Your task to perform on an android device: Search for "alienware aurora" on costco, select the first entry, and add it to the cart. Image 0: 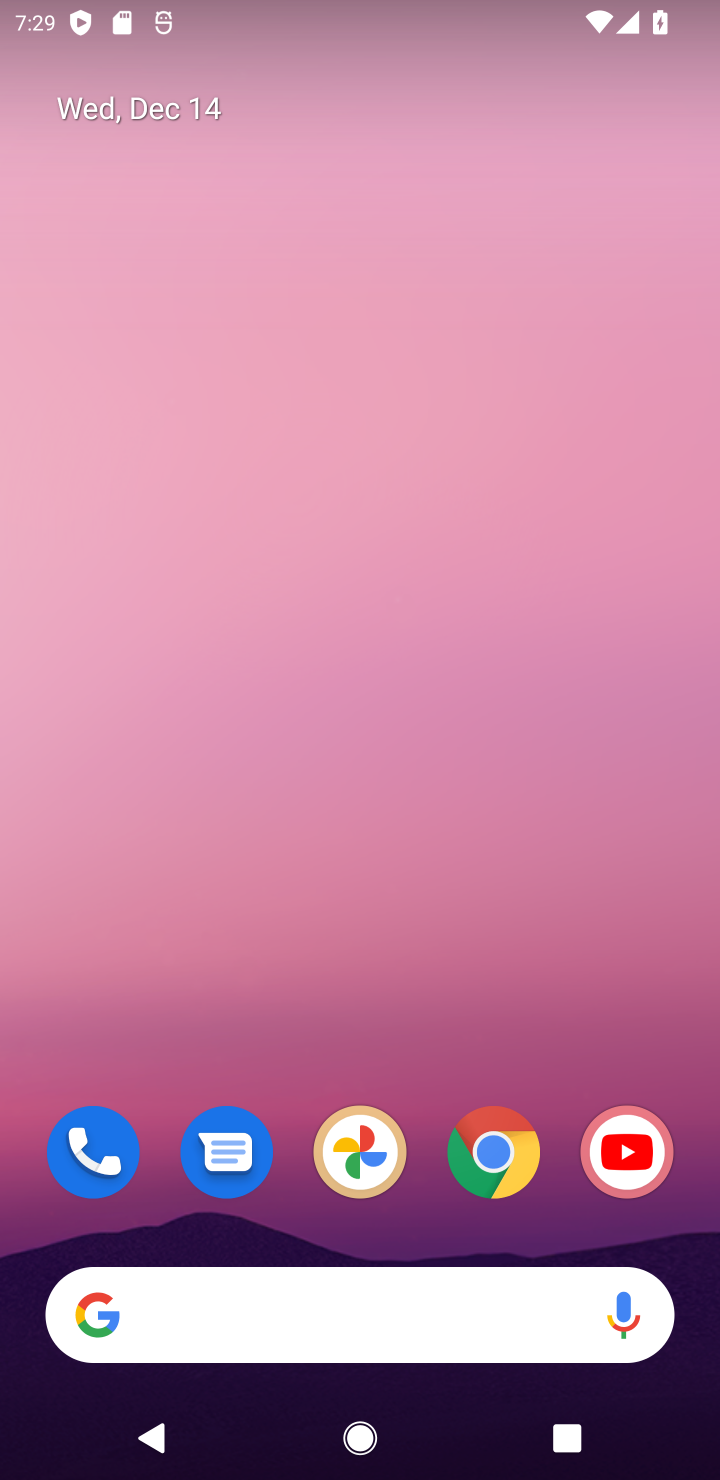
Step 0: click (490, 1150)
Your task to perform on an android device: Search for "alienware aurora" on costco, select the first entry, and add it to the cart. Image 1: 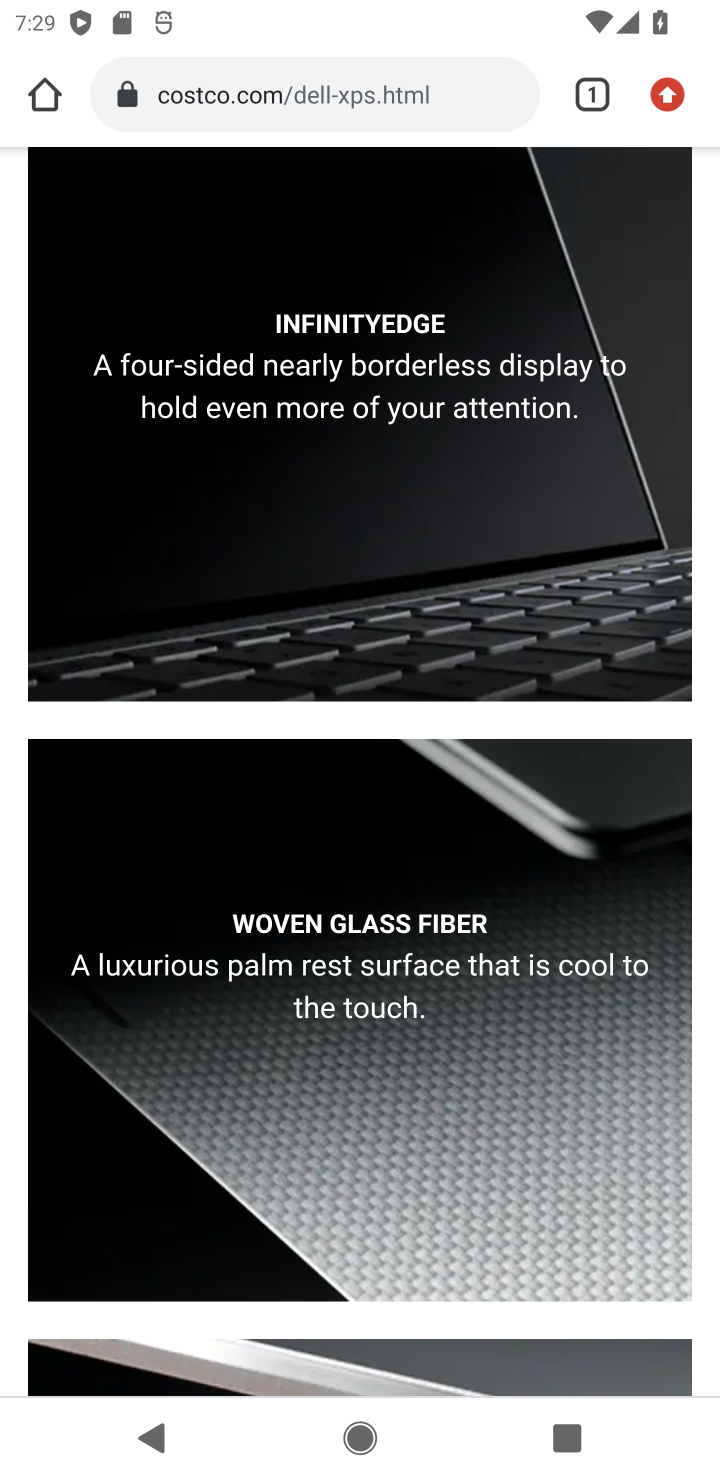
Step 1: click (228, 111)
Your task to perform on an android device: Search for "alienware aurora" on costco, select the first entry, and add it to the cart. Image 2: 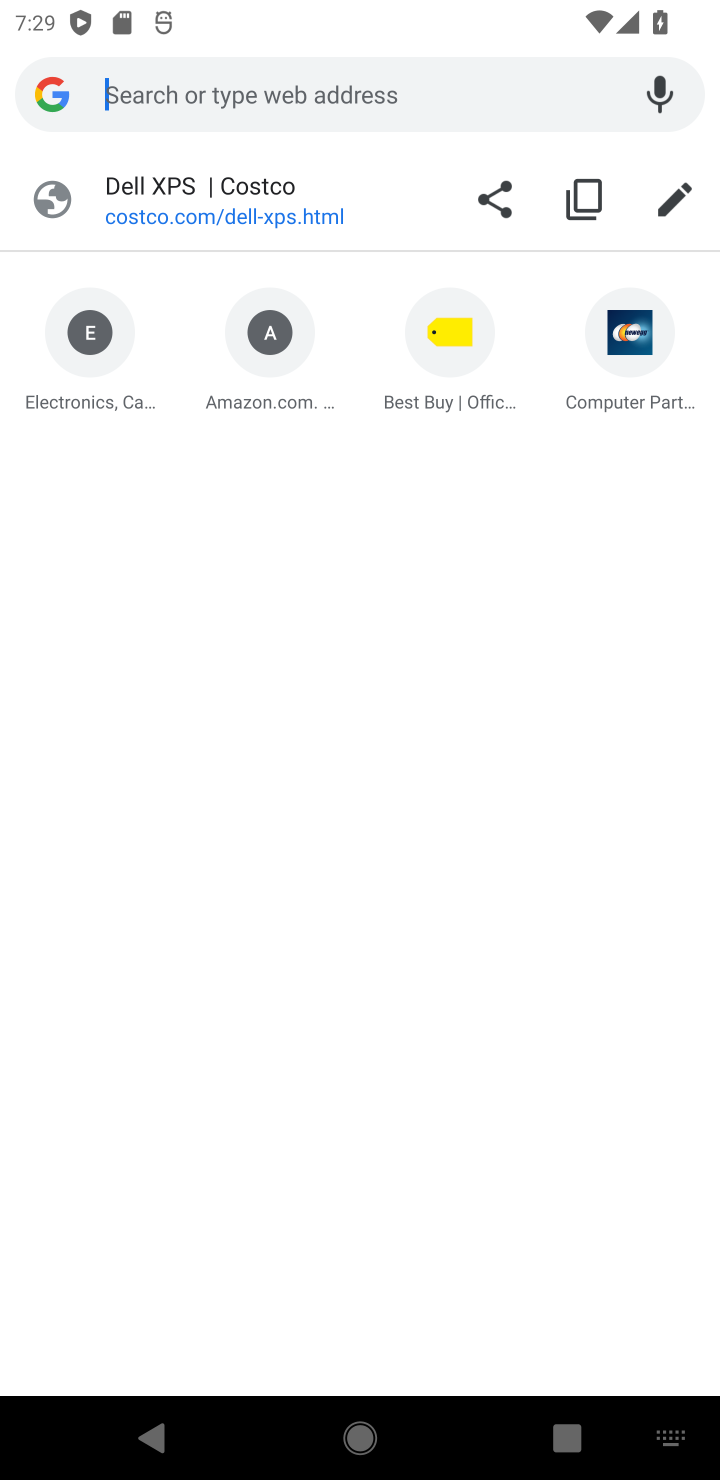
Step 2: type "costco.com"
Your task to perform on an android device: Search for "alienware aurora" on costco, select the first entry, and add it to the cart. Image 3: 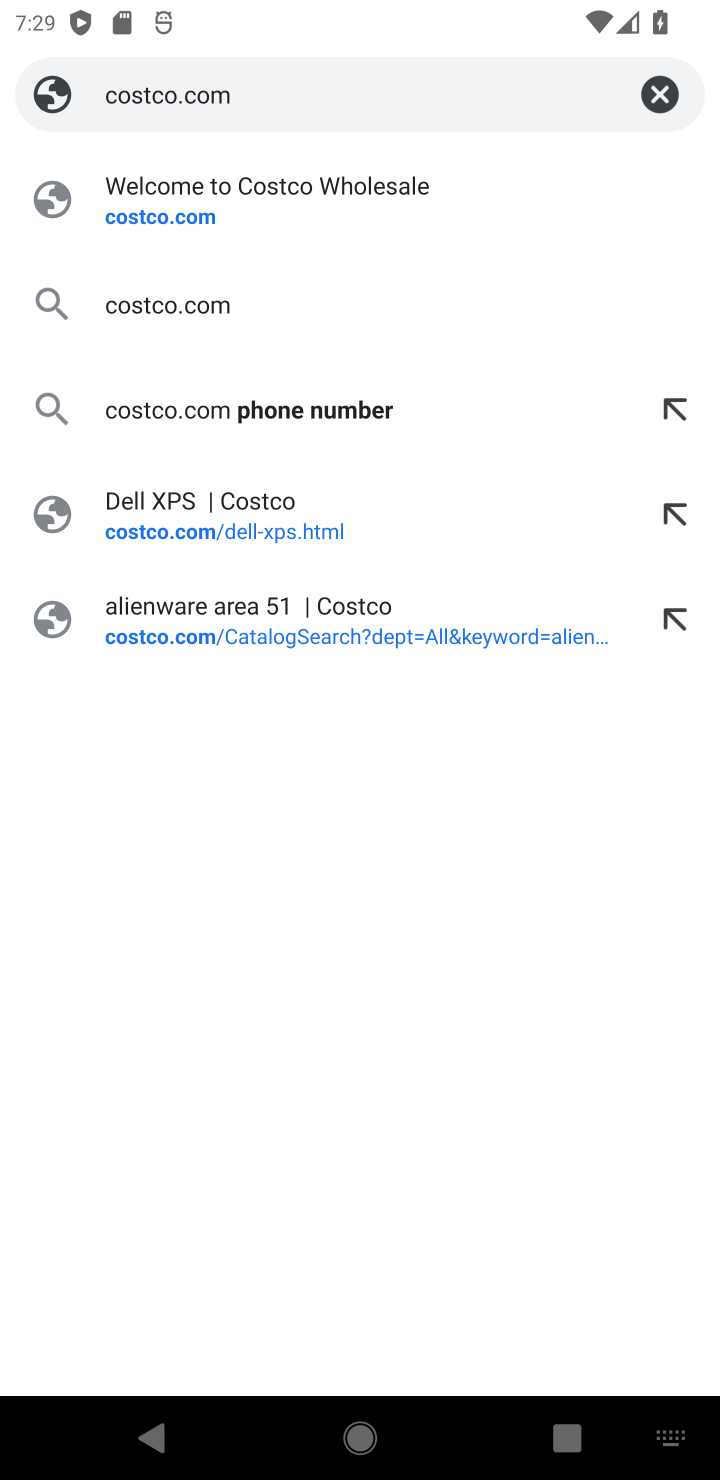
Step 3: click (166, 222)
Your task to perform on an android device: Search for "alienware aurora" on costco, select the first entry, and add it to the cart. Image 4: 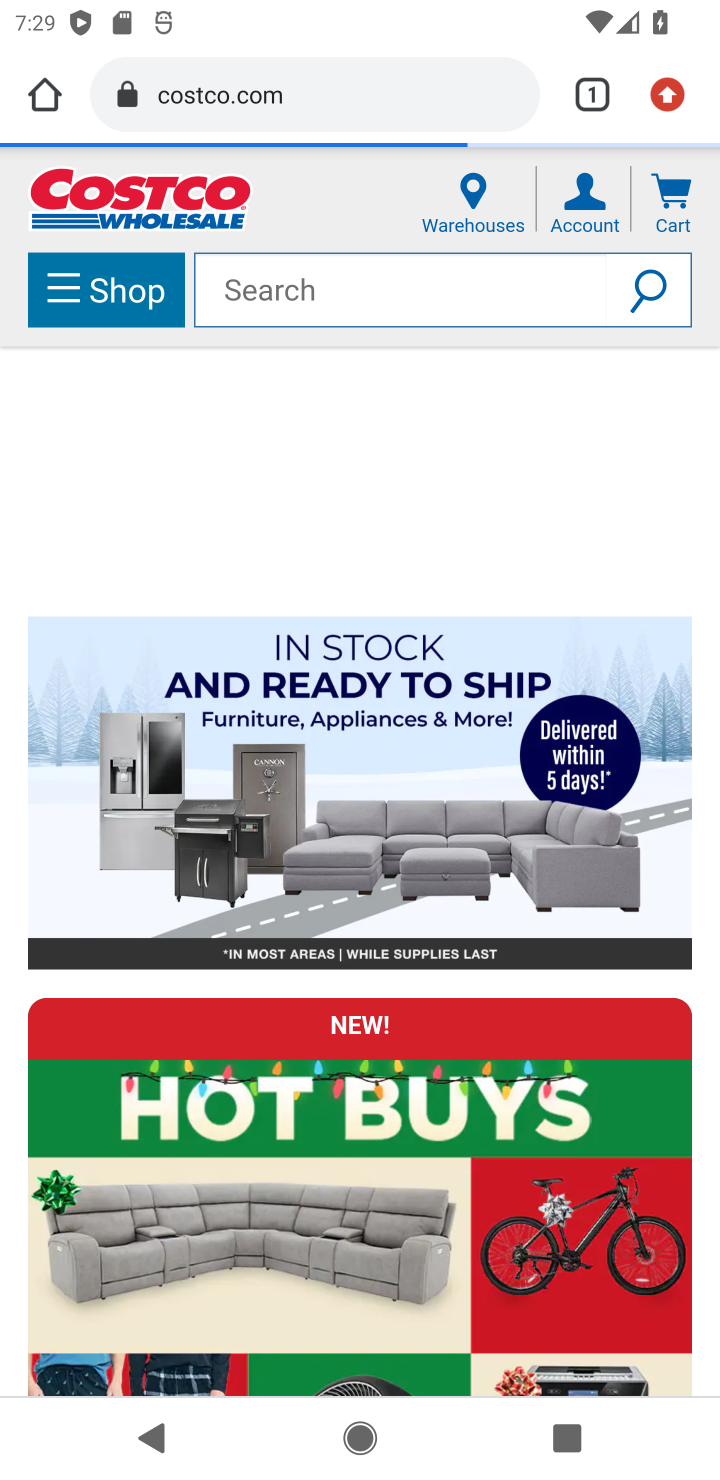
Step 4: click (230, 271)
Your task to perform on an android device: Search for "alienware aurora" on costco, select the first entry, and add it to the cart. Image 5: 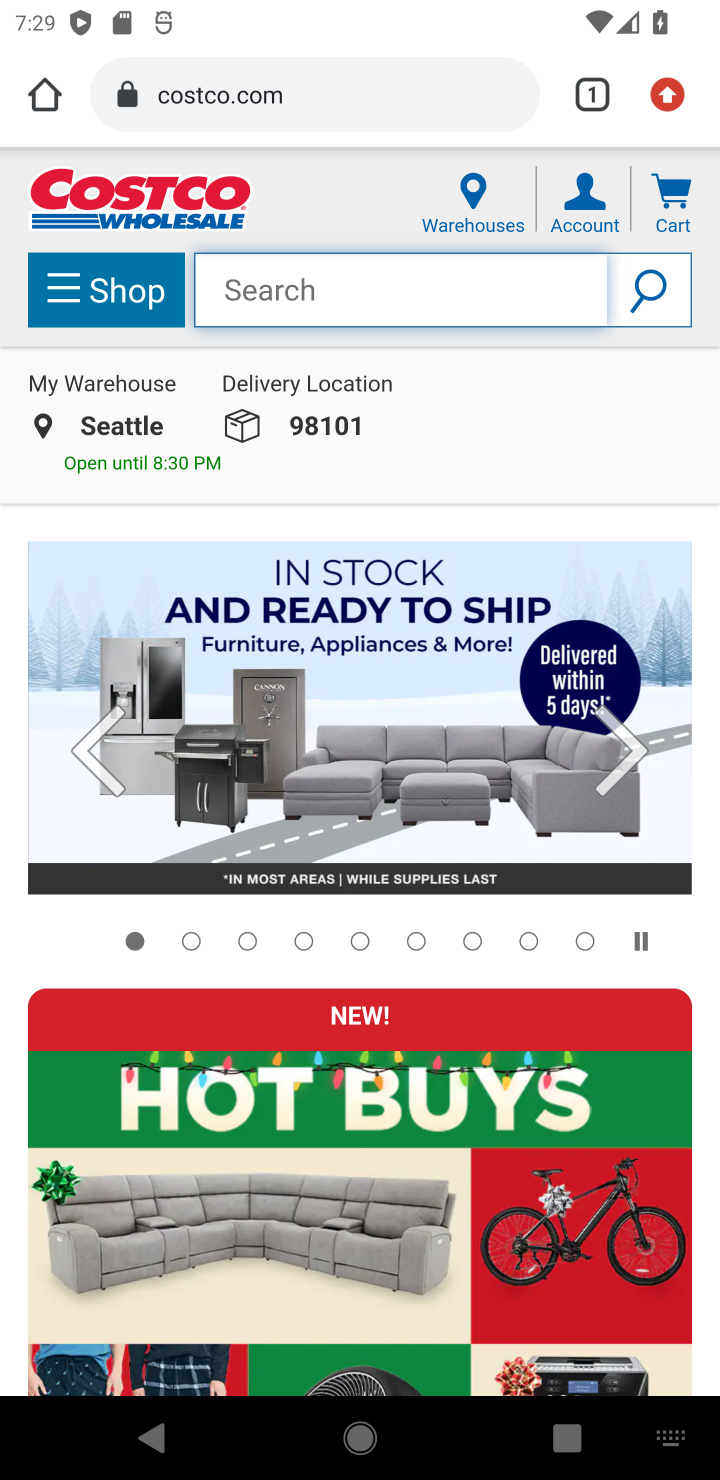
Step 5: type "alienware aurora"
Your task to perform on an android device: Search for "alienware aurora" on costco, select the first entry, and add it to the cart. Image 6: 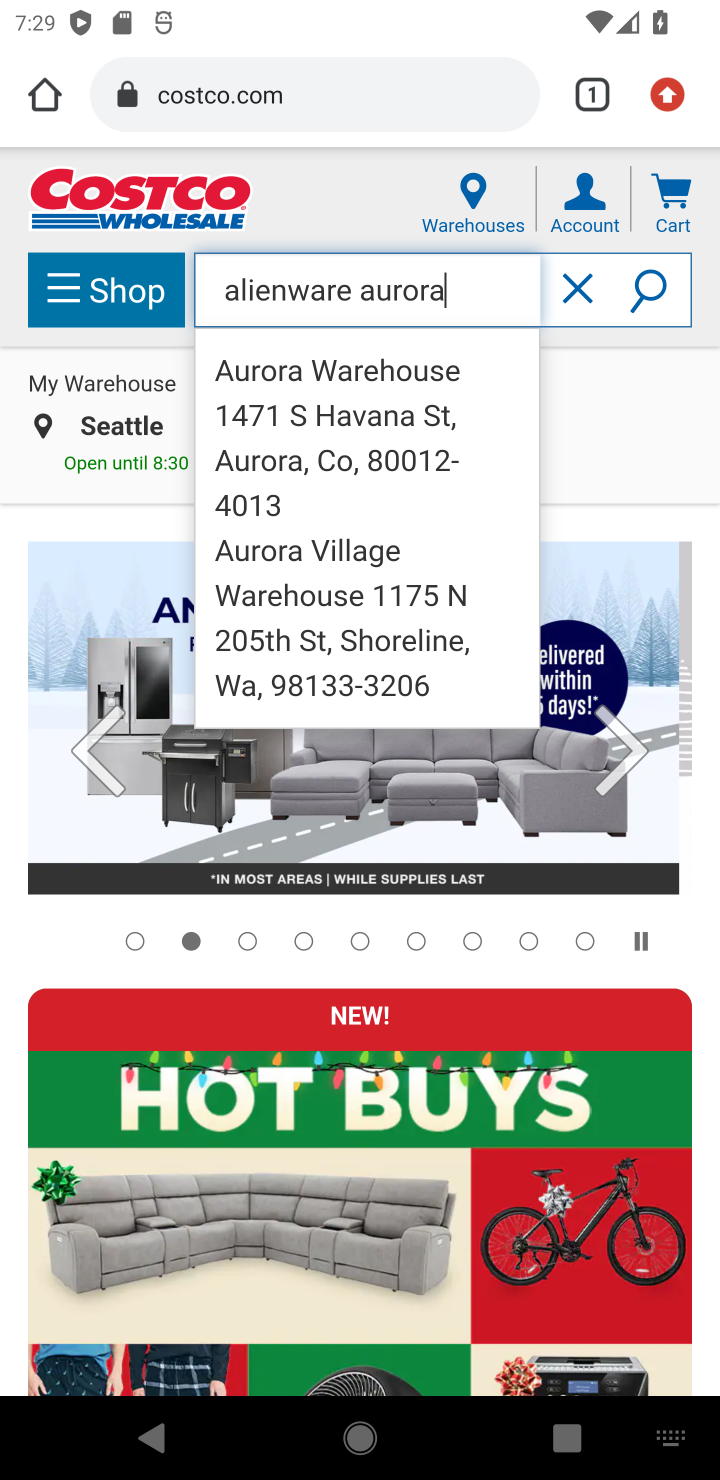
Step 6: click (633, 297)
Your task to perform on an android device: Search for "alienware aurora" on costco, select the first entry, and add it to the cart. Image 7: 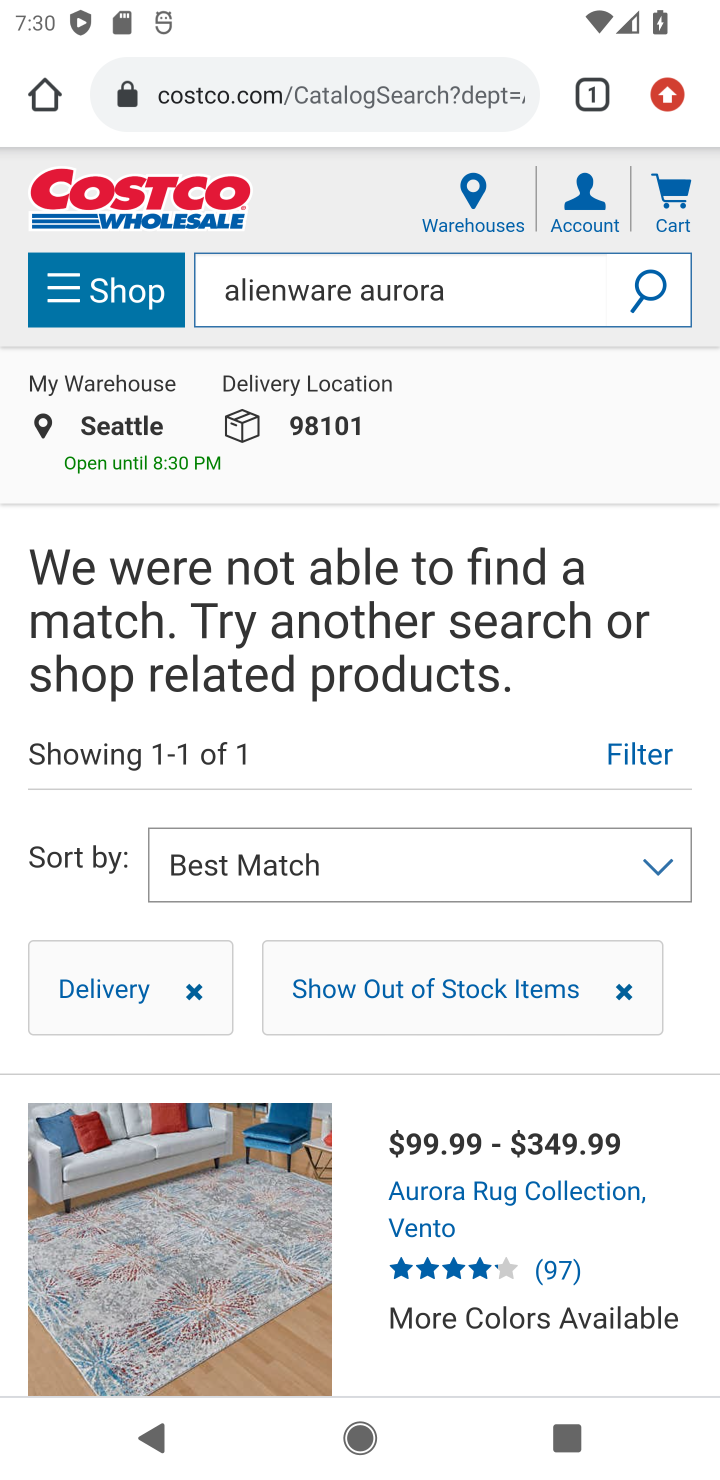
Step 7: task complete